Your task to perform on an android device: turn notification dots on Image 0: 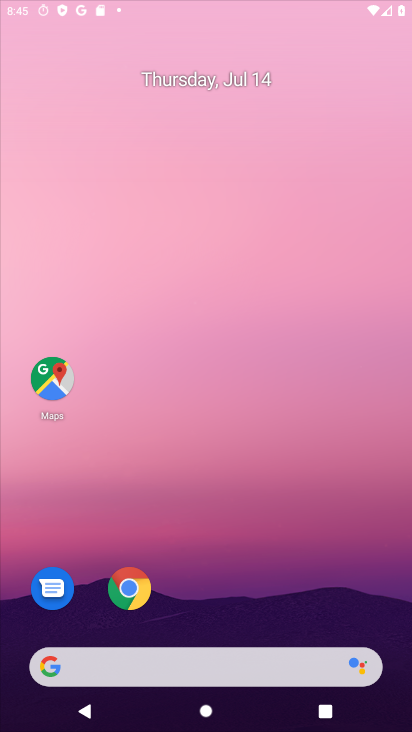
Step 0: drag from (185, 167) to (192, 133)
Your task to perform on an android device: turn notification dots on Image 1: 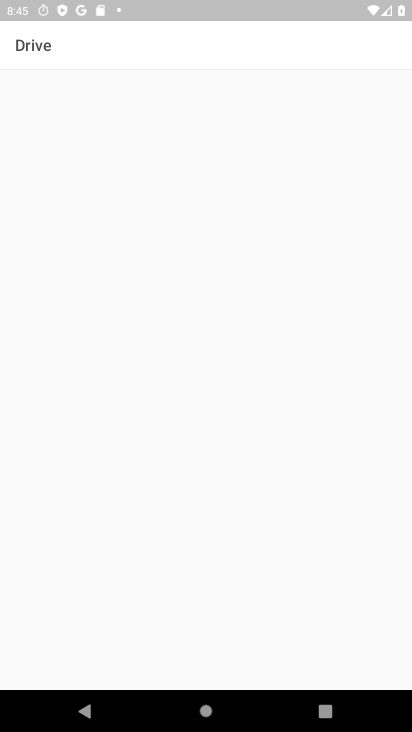
Step 1: drag from (206, 639) to (233, 136)
Your task to perform on an android device: turn notification dots on Image 2: 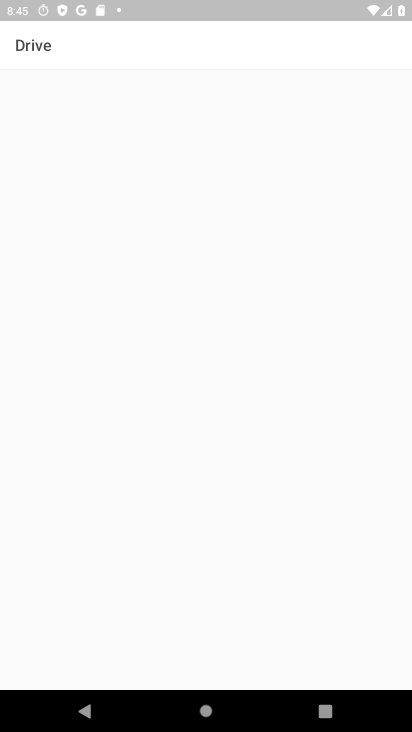
Step 2: press back button
Your task to perform on an android device: turn notification dots on Image 3: 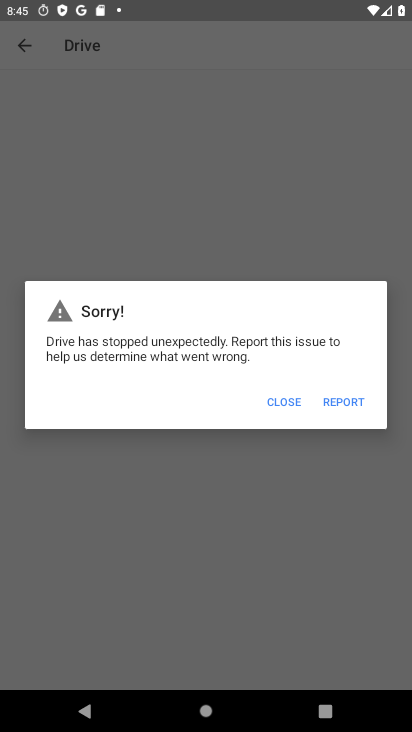
Step 3: press back button
Your task to perform on an android device: turn notification dots on Image 4: 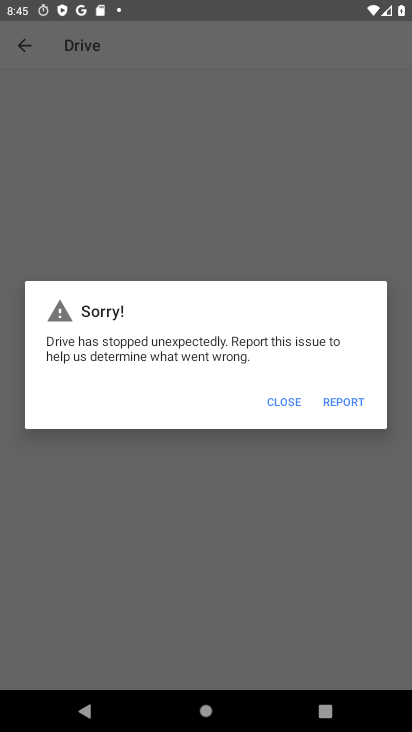
Step 4: press home button
Your task to perform on an android device: turn notification dots on Image 5: 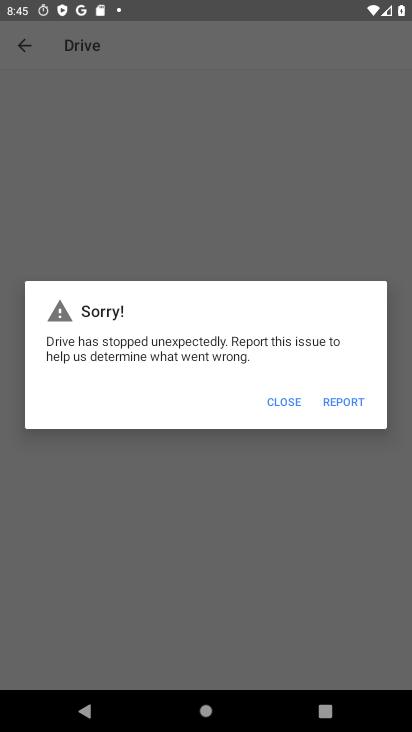
Step 5: press home button
Your task to perform on an android device: turn notification dots on Image 6: 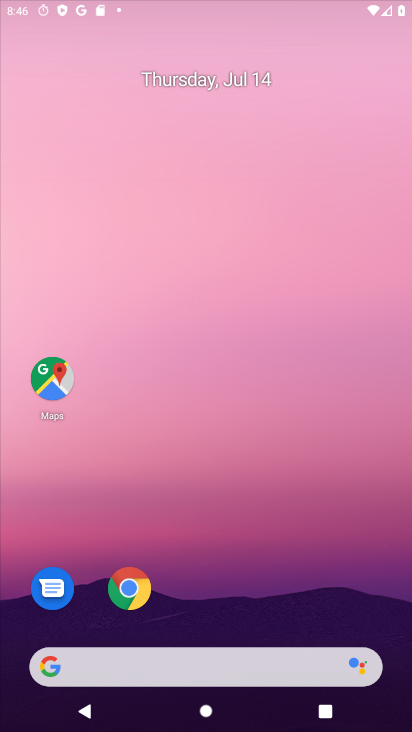
Step 6: click (275, 402)
Your task to perform on an android device: turn notification dots on Image 7: 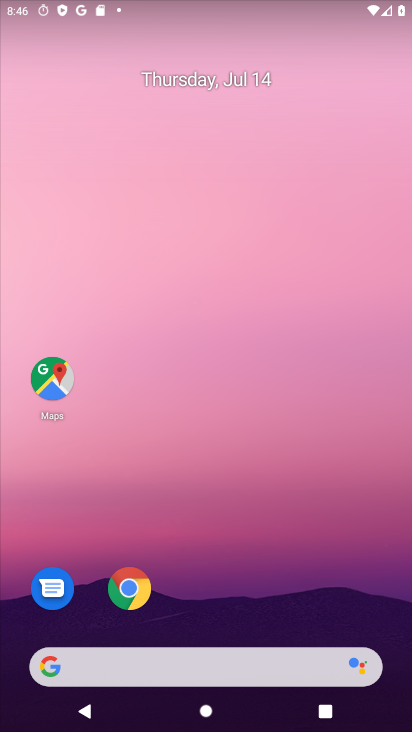
Step 7: drag from (200, 709) to (55, 180)
Your task to perform on an android device: turn notification dots on Image 8: 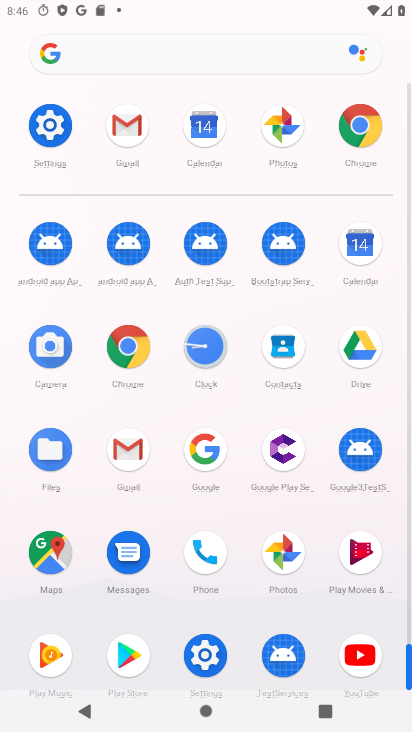
Step 8: click (197, 659)
Your task to perform on an android device: turn notification dots on Image 9: 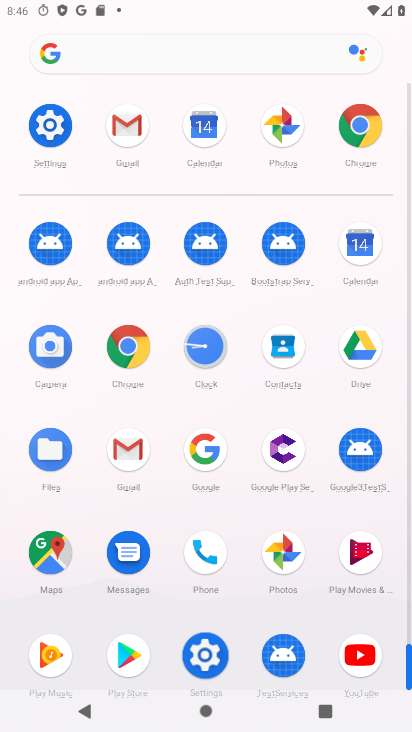
Step 9: click (198, 659)
Your task to perform on an android device: turn notification dots on Image 10: 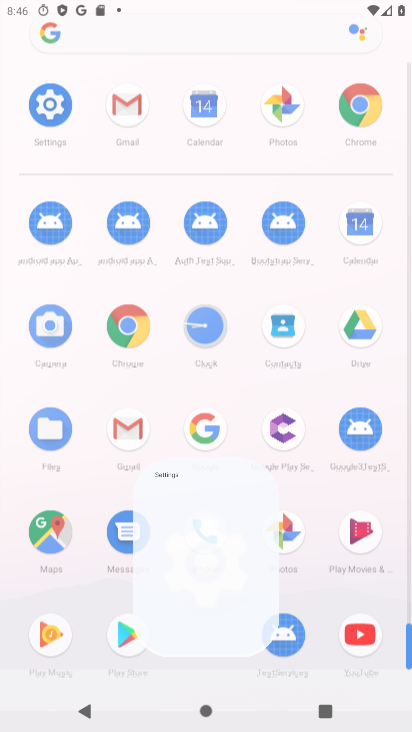
Step 10: click (198, 659)
Your task to perform on an android device: turn notification dots on Image 11: 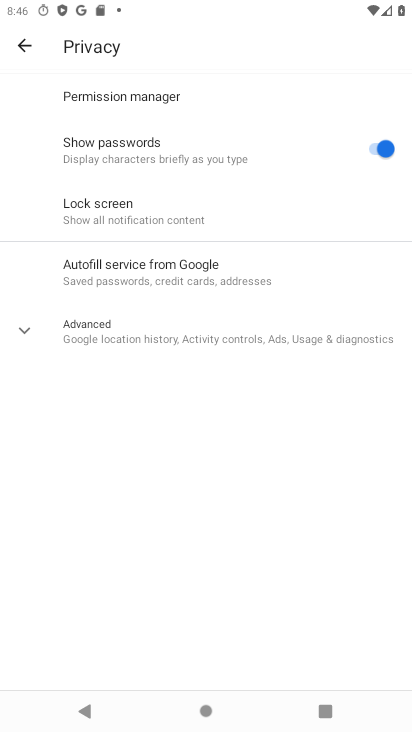
Step 11: click (90, 238)
Your task to perform on an android device: turn notification dots on Image 12: 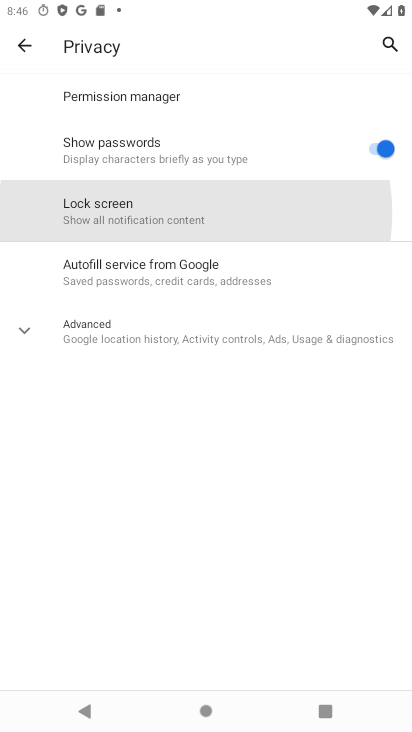
Step 12: click (90, 238)
Your task to perform on an android device: turn notification dots on Image 13: 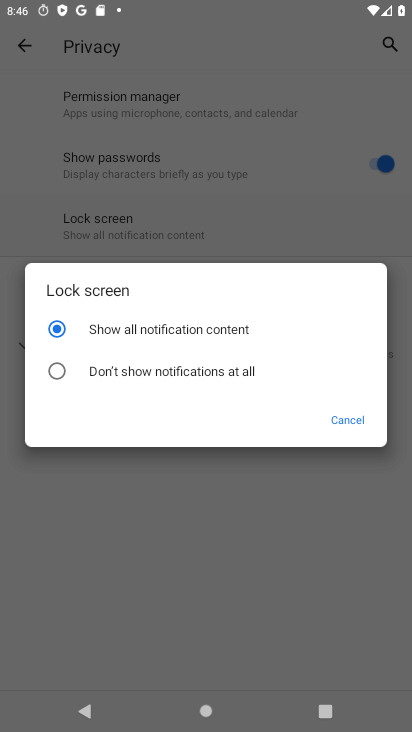
Step 13: click (26, 49)
Your task to perform on an android device: turn notification dots on Image 14: 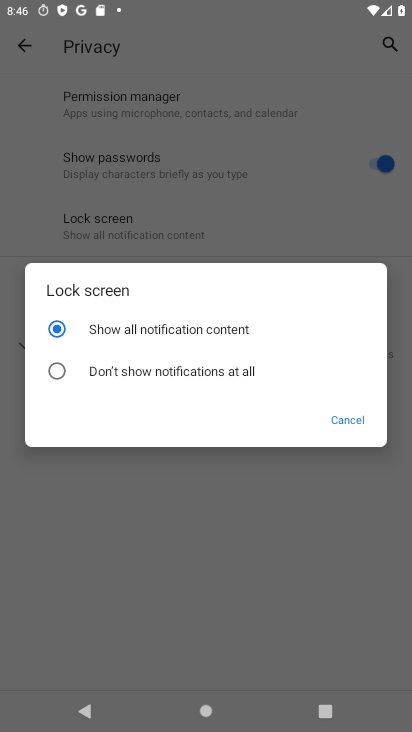
Step 14: click (332, 413)
Your task to perform on an android device: turn notification dots on Image 15: 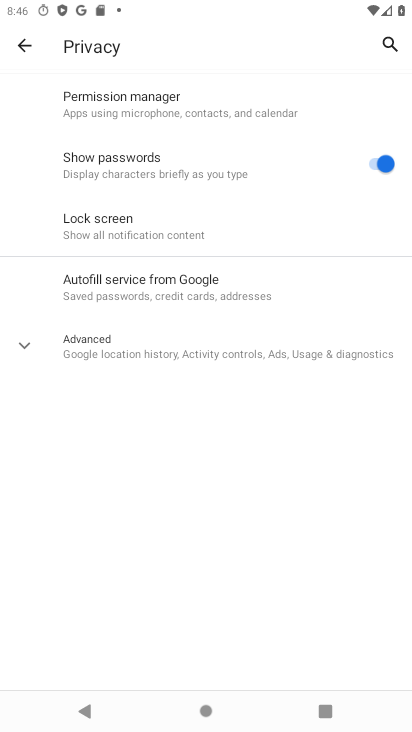
Step 15: click (22, 34)
Your task to perform on an android device: turn notification dots on Image 16: 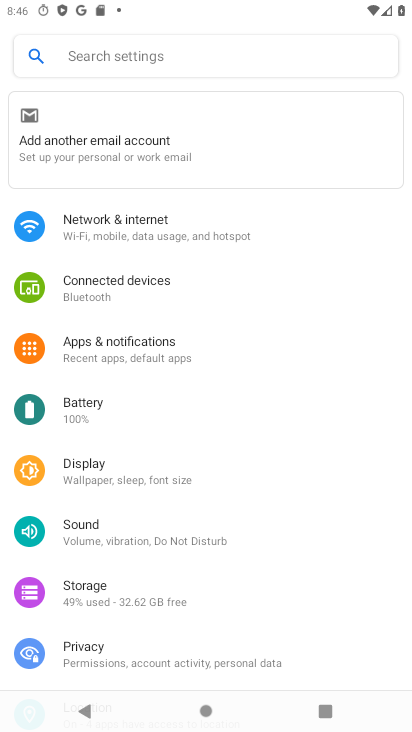
Step 16: click (129, 343)
Your task to perform on an android device: turn notification dots on Image 17: 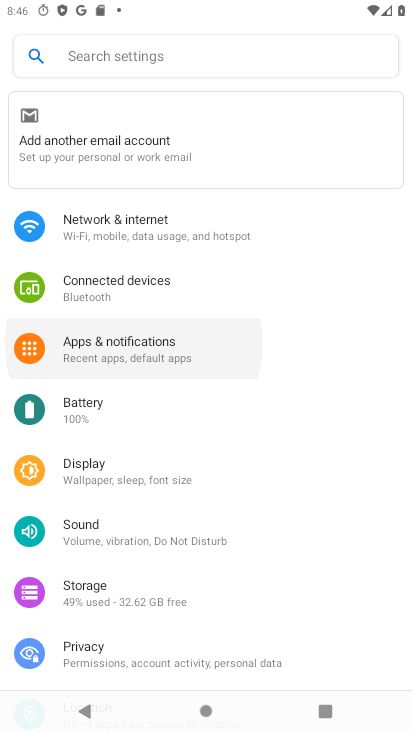
Step 17: click (130, 344)
Your task to perform on an android device: turn notification dots on Image 18: 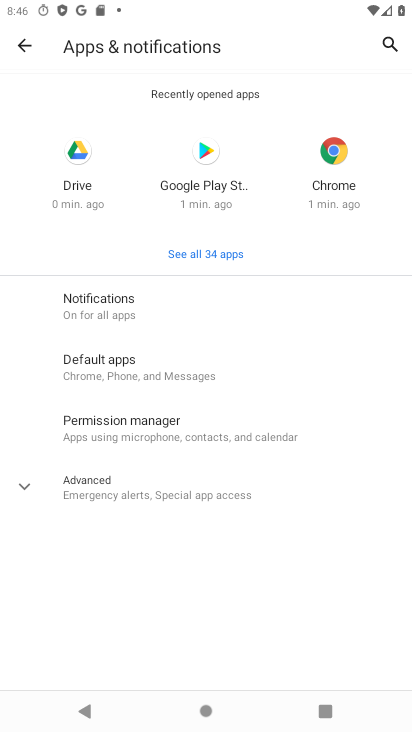
Step 18: click (85, 293)
Your task to perform on an android device: turn notification dots on Image 19: 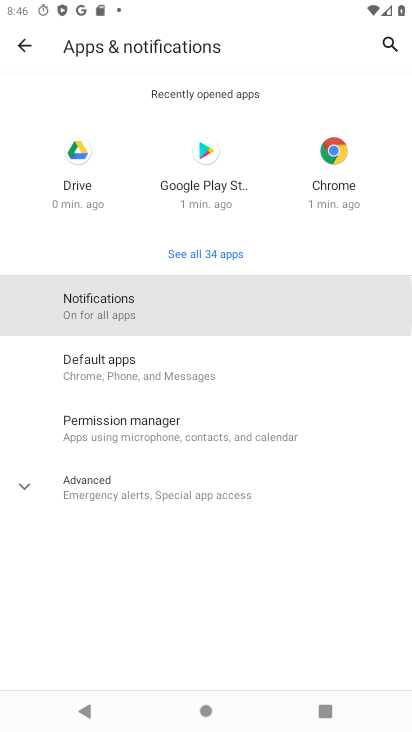
Step 19: click (85, 293)
Your task to perform on an android device: turn notification dots on Image 20: 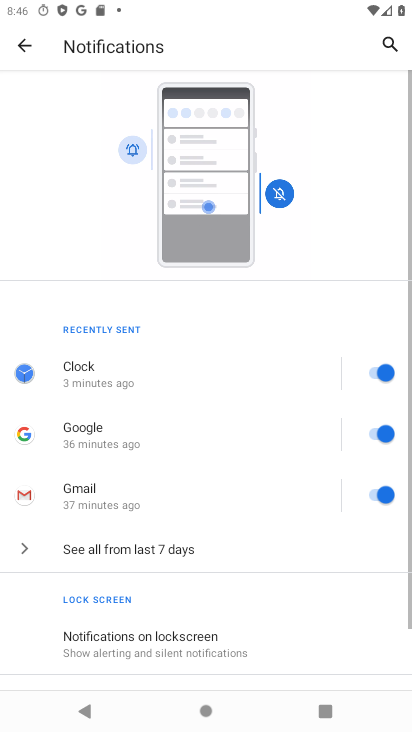
Step 20: drag from (179, 574) to (166, 221)
Your task to perform on an android device: turn notification dots on Image 21: 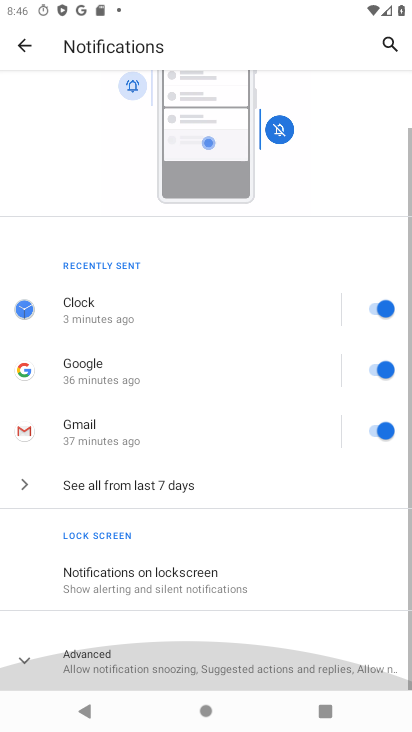
Step 21: drag from (204, 531) to (182, 312)
Your task to perform on an android device: turn notification dots on Image 22: 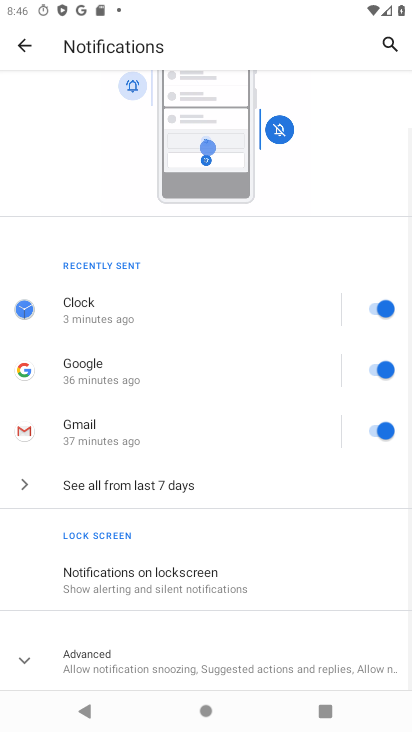
Step 22: click (151, 668)
Your task to perform on an android device: turn notification dots on Image 23: 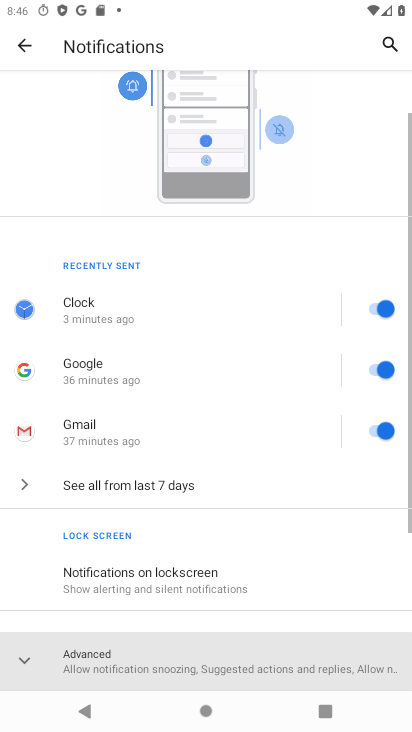
Step 23: click (149, 667)
Your task to perform on an android device: turn notification dots on Image 24: 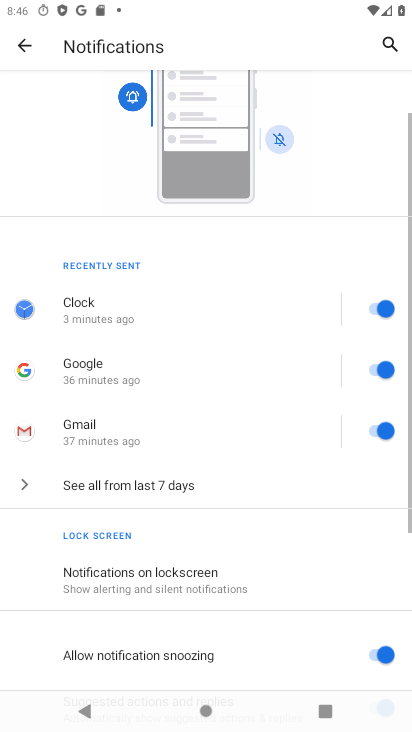
Step 24: task complete